Your task to perform on an android device: refresh tabs in the chrome app Image 0: 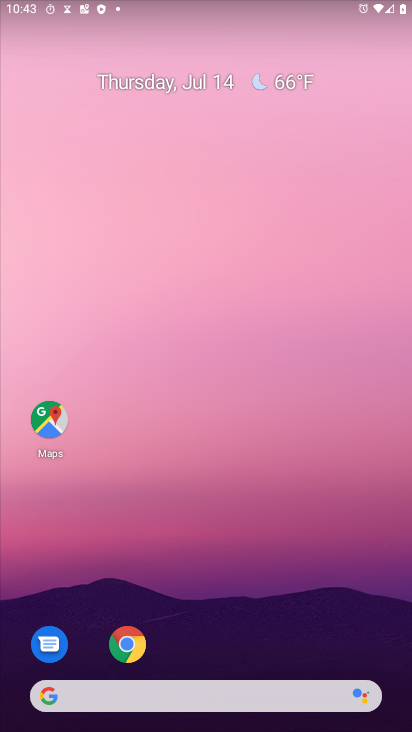
Step 0: drag from (272, 384) to (258, 284)
Your task to perform on an android device: refresh tabs in the chrome app Image 1: 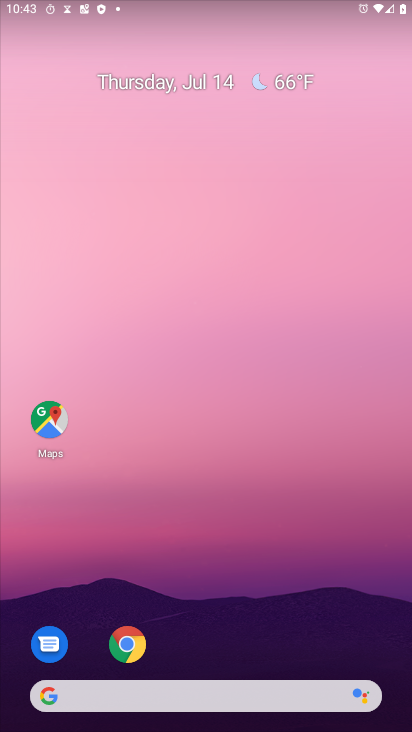
Step 1: drag from (214, 676) to (196, 172)
Your task to perform on an android device: refresh tabs in the chrome app Image 2: 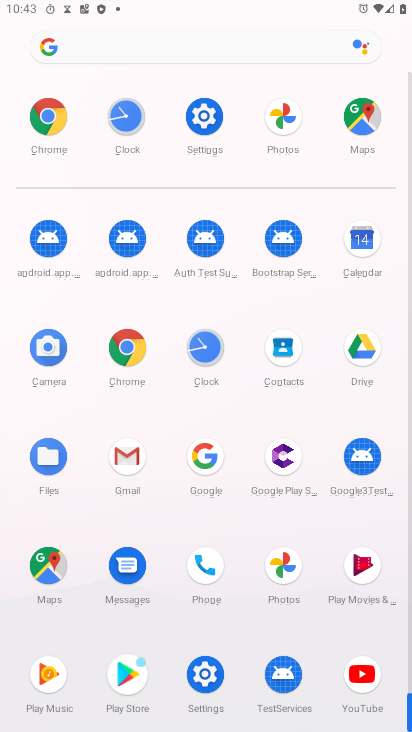
Step 2: click (52, 128)
Your task to perform on an android device: refresh tabs in the chrome app Image 3: 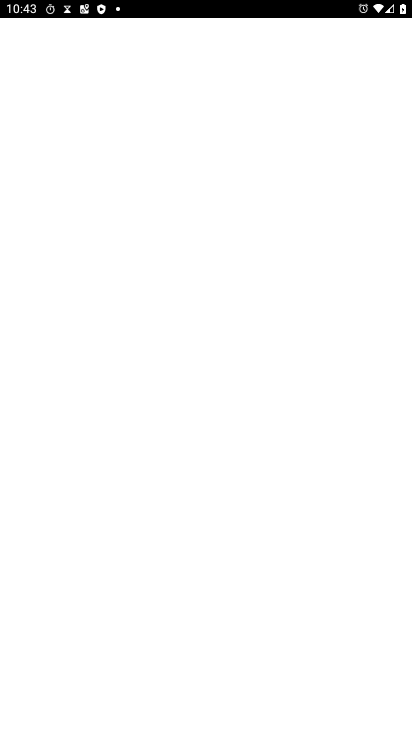
Step 3: click (52, 127)
Your task to perform on an android device: refresh tabs in the chrome app Image 4: 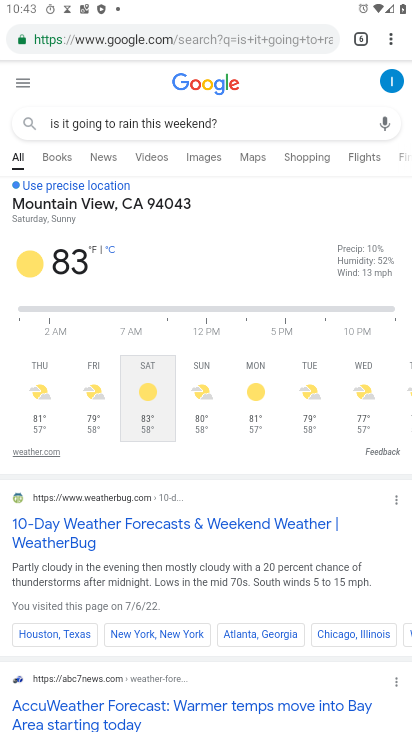
Step 4: click (388, 36)
Your task to perform on an android device: refresh tabs in the chrome app Image 5: 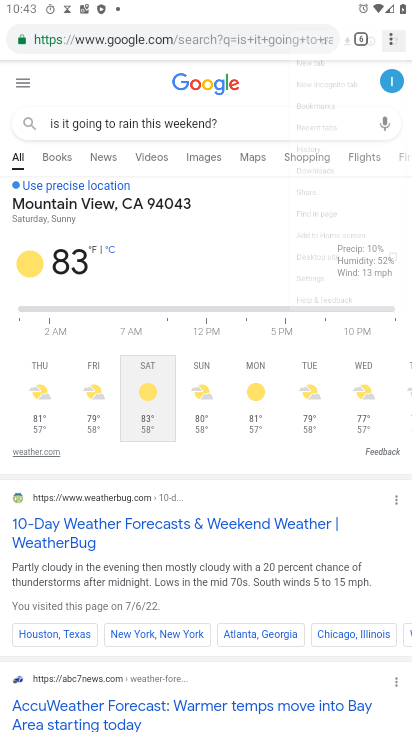
Step 5: click (386, 37)
Your task to perform on an android device: refresh tabs in the chrome app Image 6: 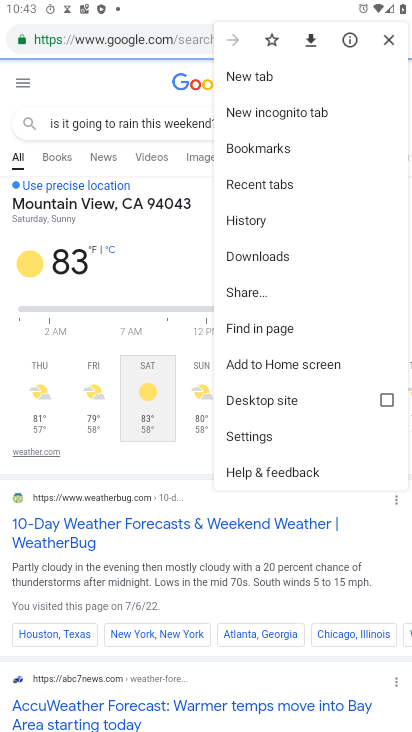
Step 6: task complete